Your task to perform on an android device: Search for sushi restaurants on Maps Image 0: 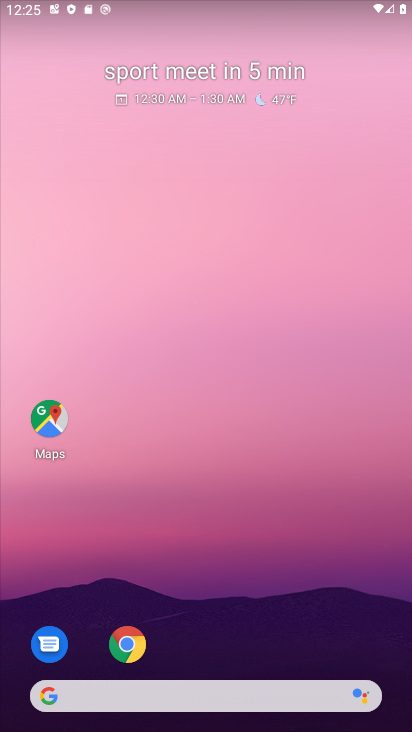
Step 0: click (44, 420)
Your task to perform on an android device: Search for sushi restaurants on Maps Image 1: 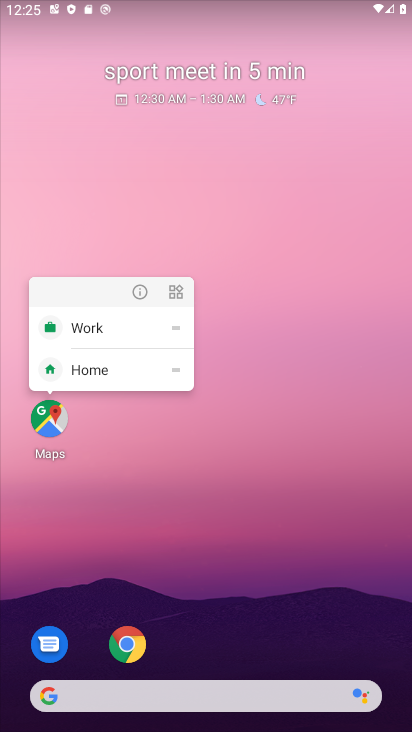
Step 1: click (129, 291)
Your task to perform on an android device: Search for sushi restaurants on Maps Image 2: 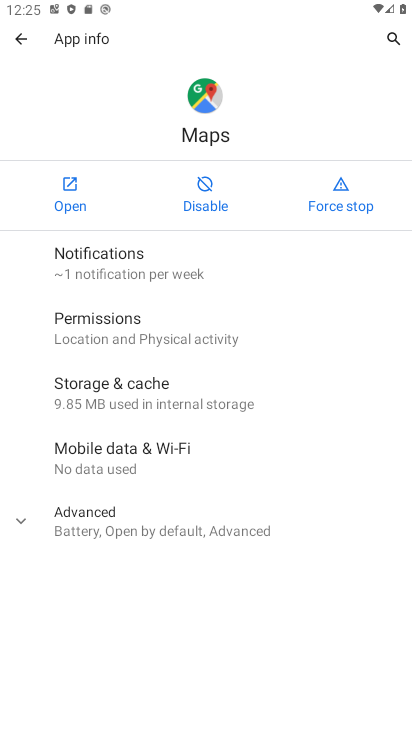
Step 2: click (83, 194)
Your task to perform on an android device: Search for sushi restaurants on Maps Image 3: 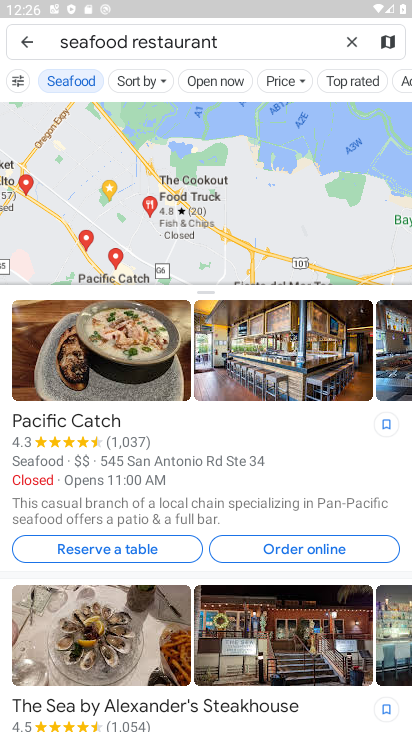
Step 3: drag from (208, 396) to (226, 463)
Your task to perform on an android device: Search for sushi restaurants on Maps Image 4: 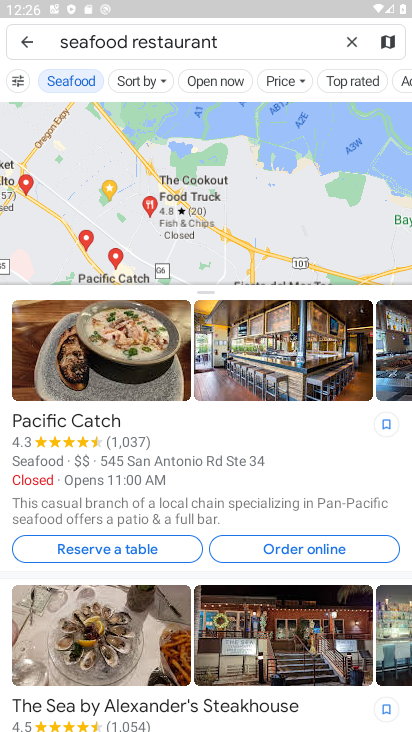
Step 4: click (250, 38)
Your task to perform on an android device: Search for sushi restaurants on Maps Image 5: 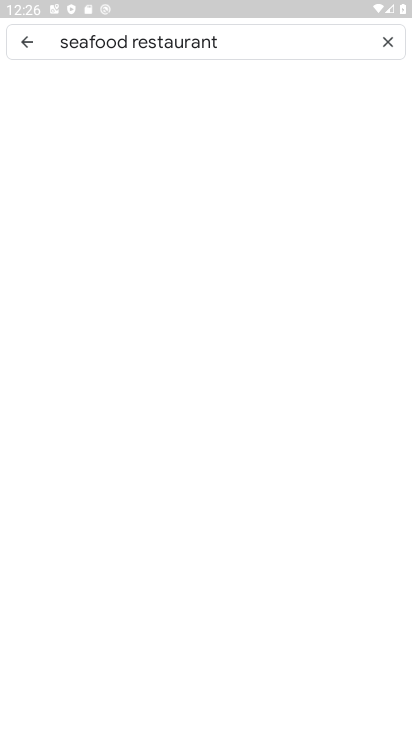
Step 5: click (353, 41)
Your task to perform on an android device: Search for sushi restaurants on Maps Image 6: 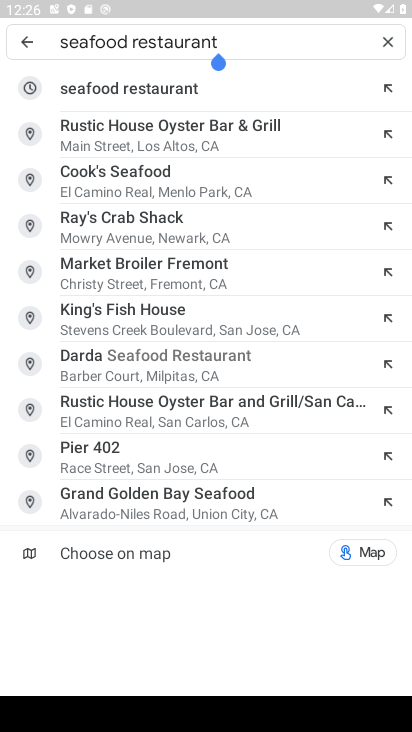
Step 6: click (390, 38)
Your task to perform on an android device: Search for sushi restaurants on Maps Image 7: 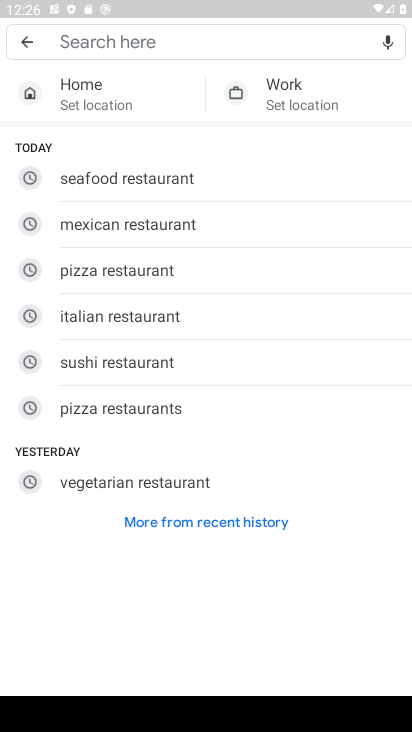
Step 7: click (128, 361)
Your task to perform on an android device: Search for sushi restaurants on Maps Image 8: 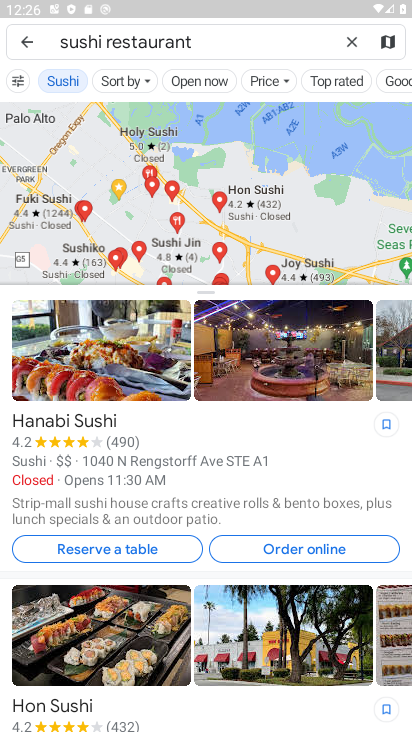
Step 8: task complete